Your task to perform on an android device: check battery use Image 0: 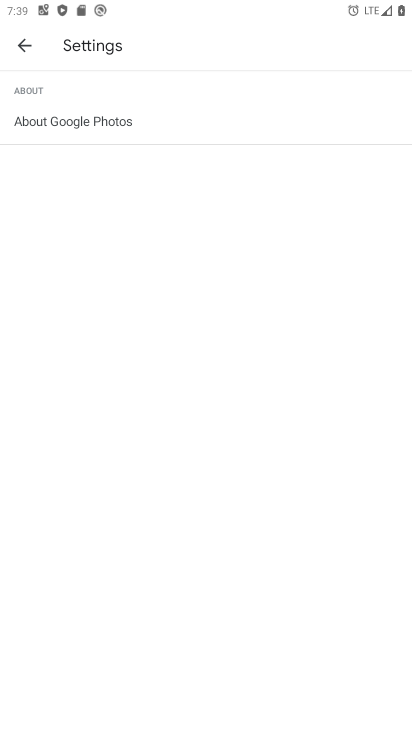
Step 0: press home button
Your task to perform on an android device: check battery use Image 1: 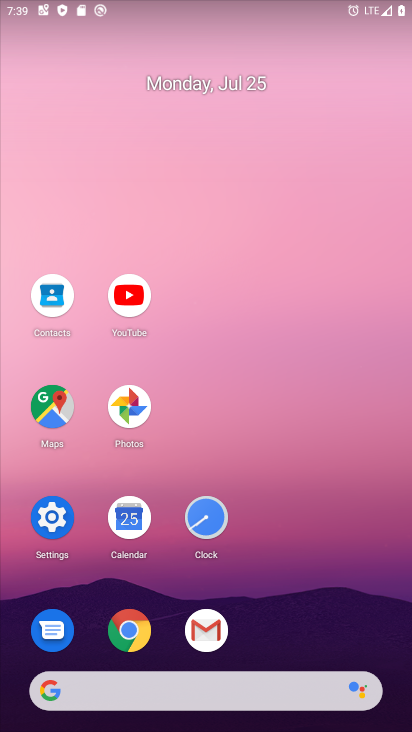
Step 1: click (56, 513)
Your task to perform on an android device: check battery use Image 2: 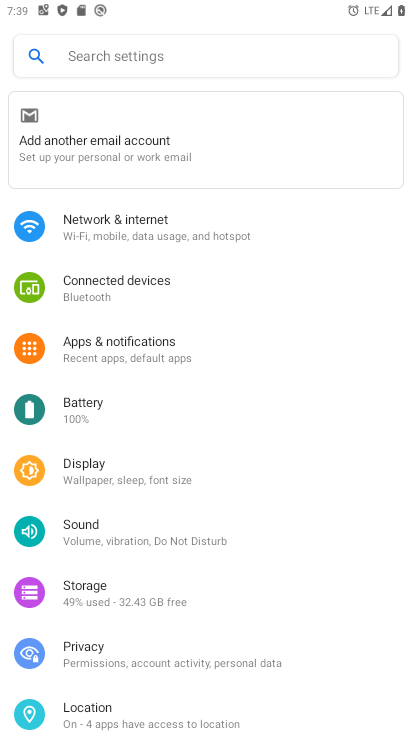
Step 2: click (73, 406)
Your task to perform on an android device: check battery use Image 3: 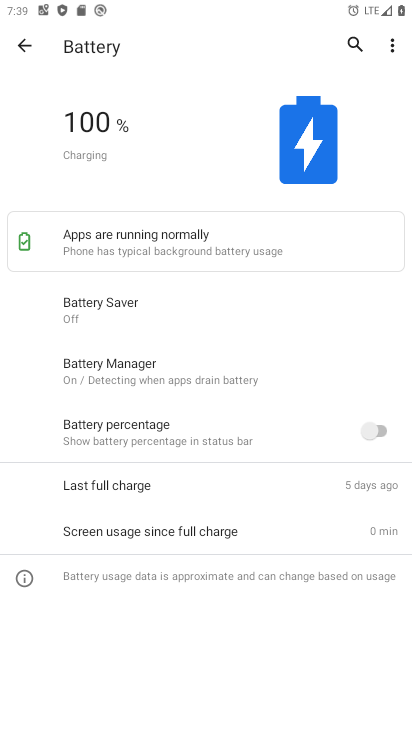
Step 3: task complete